Your task to perform on an android device: Open calendar and show me the fourth week of next month Image 0: 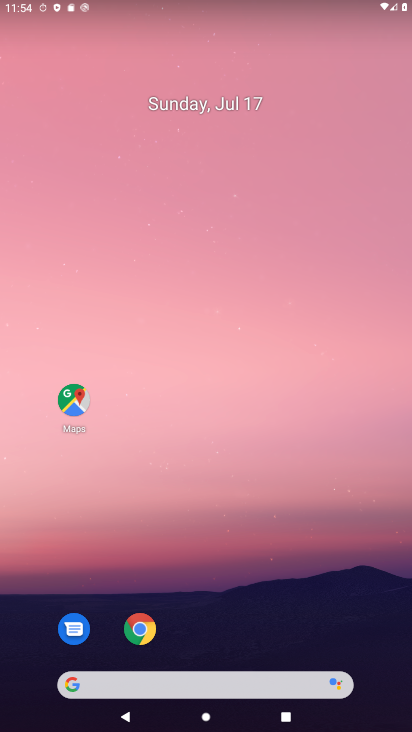
Step 0: drag from (216, 639) to (239, 29)
Your task to perform on an android device: Open calendar and show me the fourth week of next month Image 1: 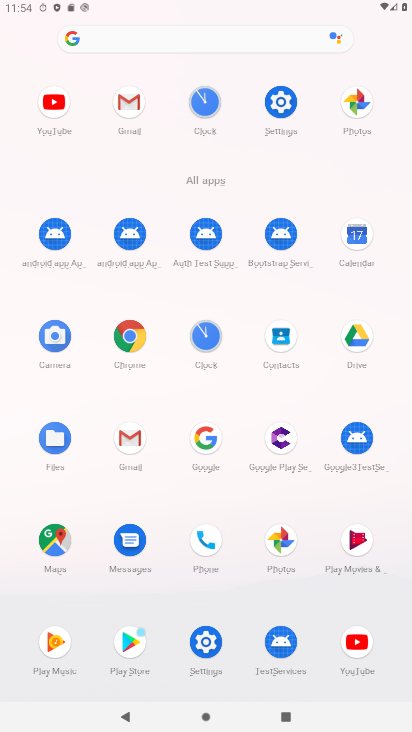
Step 1: click (353, 230)
Your task to perform on an android device: Open calendar and show me the fourth week of next month Image 2: 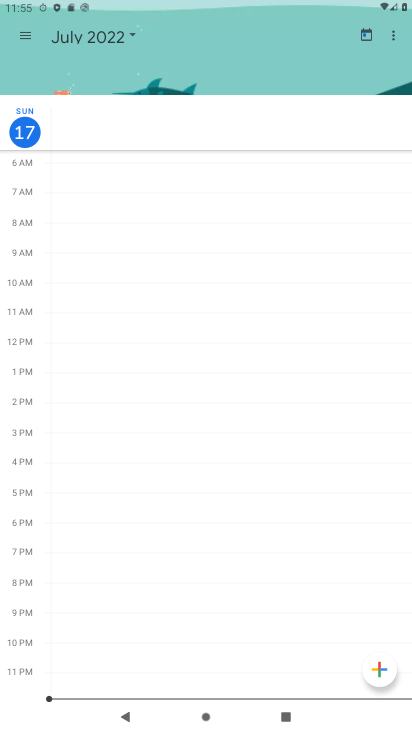
Step 2: click (22, 34)
Your task to perform on an android device: Open calendar and show me the fourth week of next month Image 3: 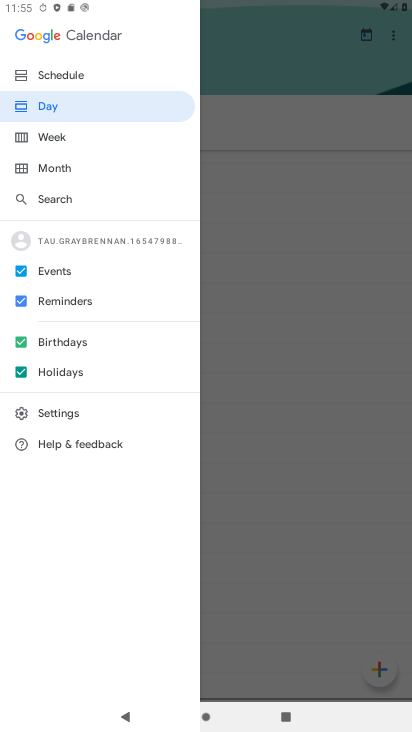
Step 3: click (48, 141)
Your task to perform on an android device: Open calendar and show me the fourth week of next month Image 4: 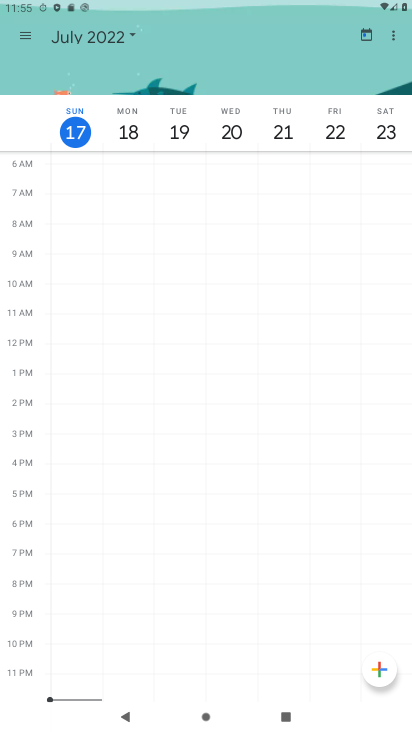
Step 4: click (134, 31)
Your task to perform on an android device: Open calendar and show me the fourth week of next month Image 5: 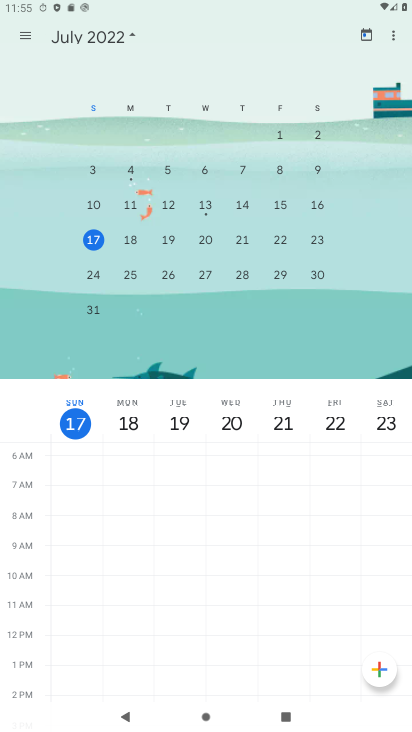
Step 5: drag from (338, 240) to (0, 209)
Your task to perform on an android device: Open calendar and show me the fourth week of next month Image 6: 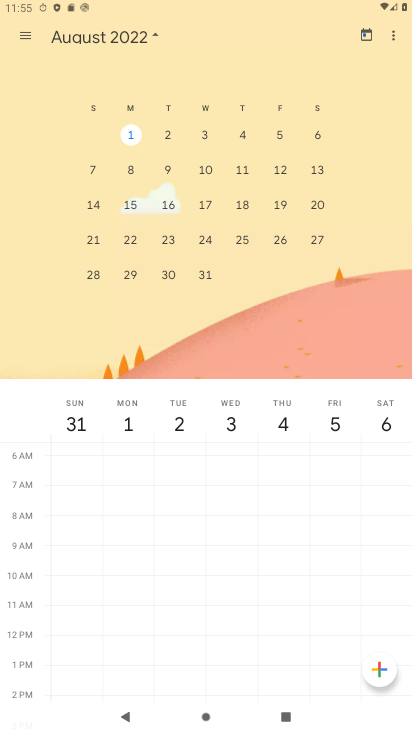
Step 6: click (91, 237)
Your task to perform on an android device: Open calendar and show me the fourth week of next month Image 7: 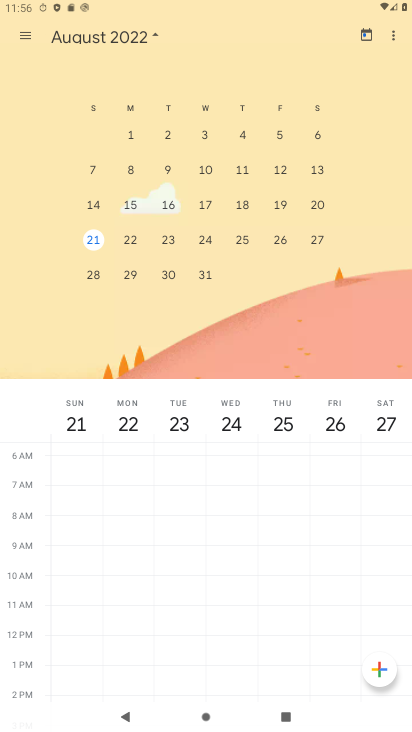
Step 7: task complete